Your task to perform on an android device: toggle wifi Image 0: 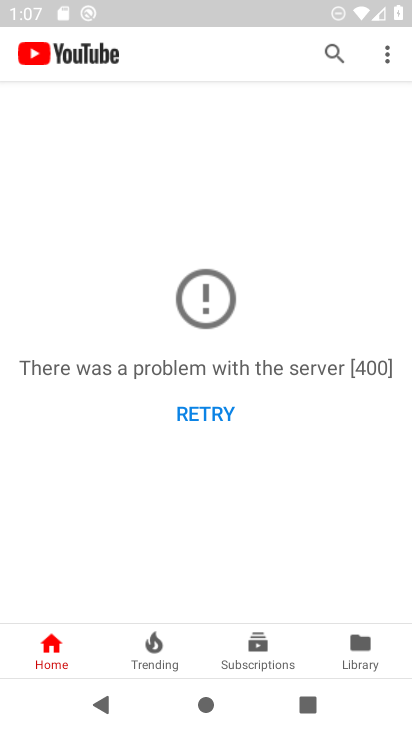
Step 0: press home button
Your task to perform on an android device: toggle wifi Image 1: 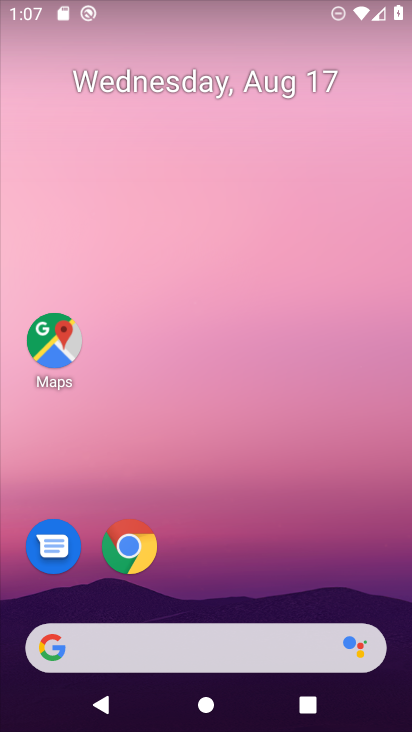
Step 1: drag from (267, 570) to (193, 87)
Your task to perform on an android device: toggle wifi Image 2: 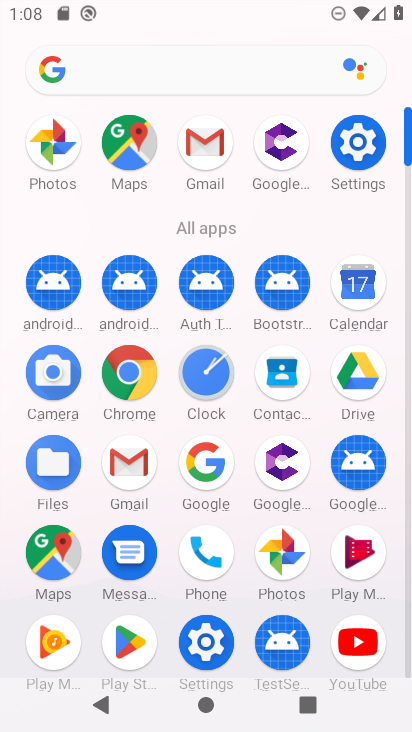
Step 2: click (357, 143)
Your task to perform on an android device: toggle wifi Image 3: 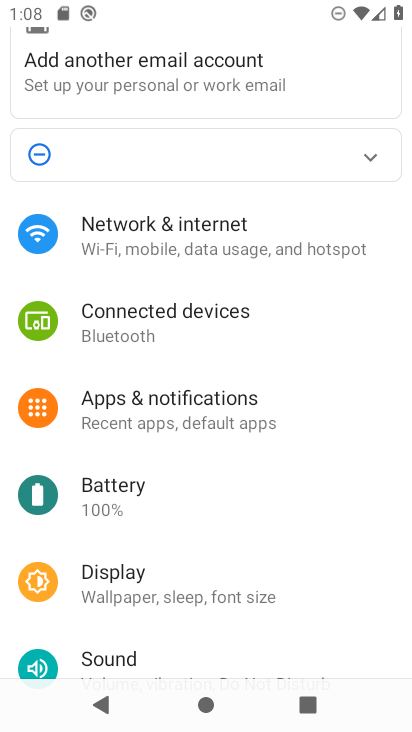
Step 3: click (185, 220)
Your task to perform on an android device: toggle wifi Image 4: 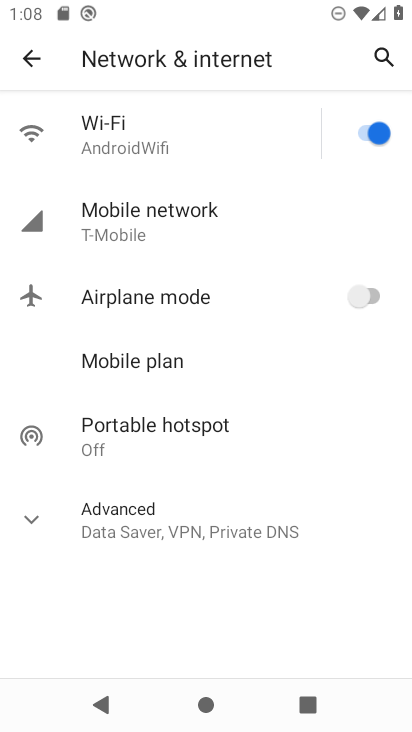
Step 4: click (382, 134)
Your task to perform on an android device: toggle wifi Image 5: 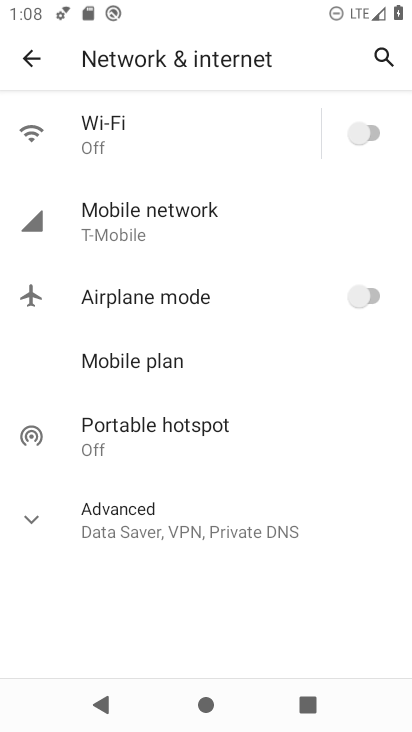
Step 5: task complete